Your task to perform on an android device: Turn off the flashlight Image 0: 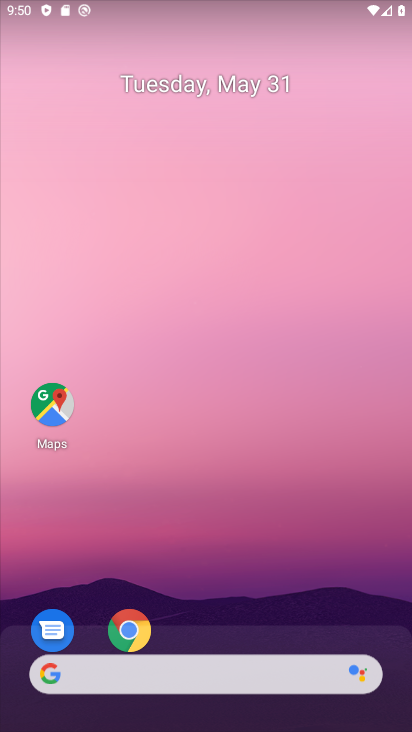
Step 0: drag from (243, 3) to (240, 388)
Your task to perform on an android device: Turn off the flashlight Image 1: 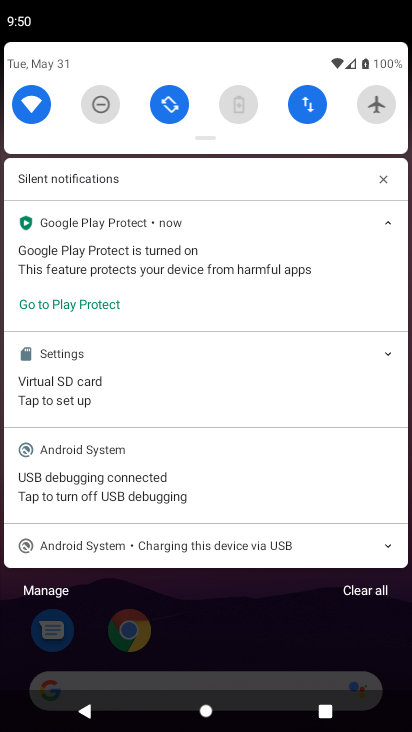
Step 1: task complete